Your task to perform on an android device: Open CNN.com Image 0: 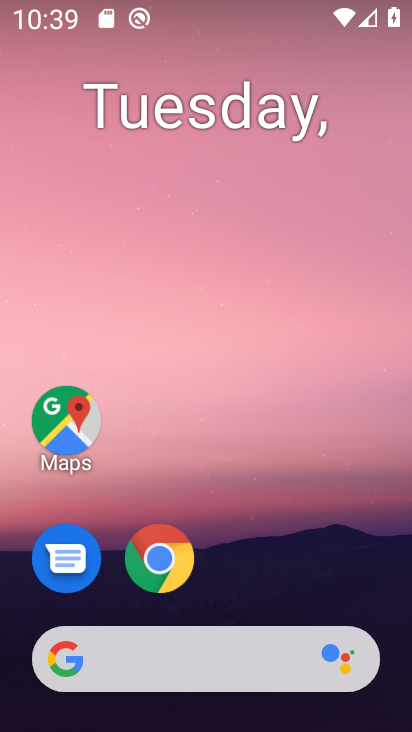
Step 0: drag from (369, 506) to (373, 83)
Your task to perform on an android device: Open CNN.com Image 1: 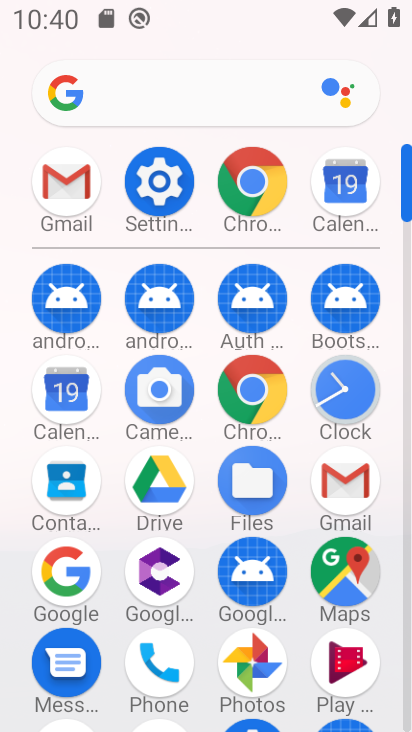
Step 1: click (247, 392)
Your task to perform on an android device: Open CNN.com Image 2: 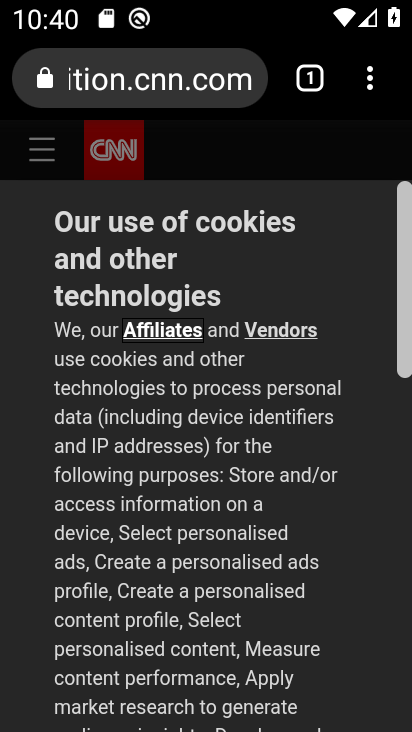
Step 2: click (205, 83)
Your task to perform on an android device: Open CNN.com Image 3: 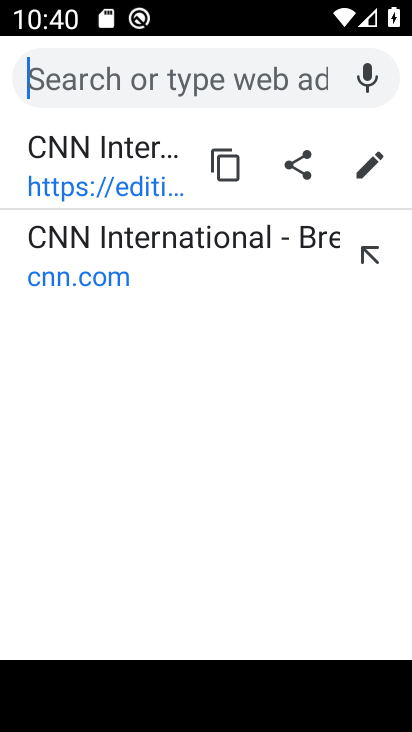
Step 3: type "cnn.com"
Your task to perform on an android device: Open CNN.com Image 4: 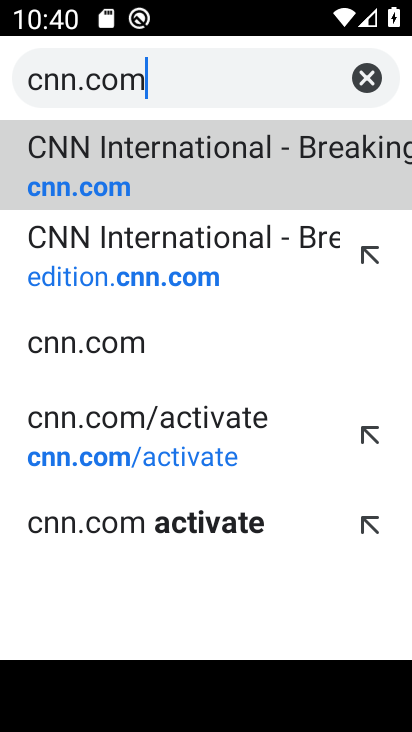
Step 4: click (257, 186)
Your task to perform on an android device: Open CNN.com Image 5: 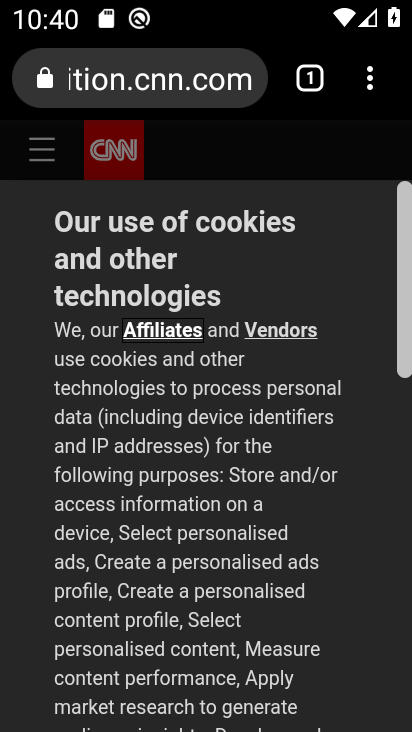
Step 5: task complete